Your task to perform on an android device: add a label to a message in the gmail app Image 0: 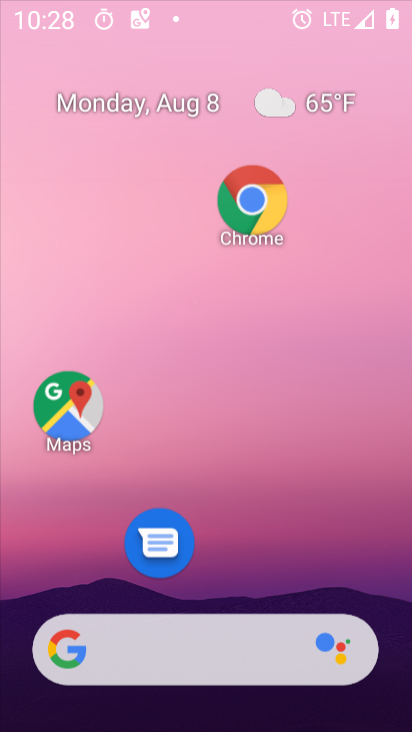
Step 0: press home button
Your task to perform on an android device: add a label to a message in the gmail app Image 1: 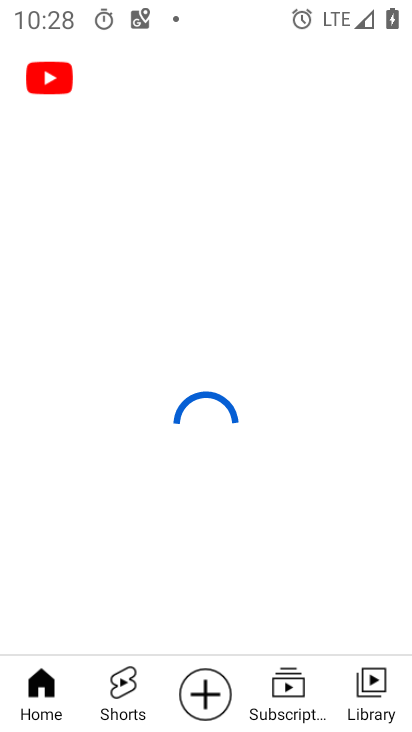
Step 1: click (240, 0)
Your task to perform on an android device: add a label to a message in the gmail app Image 2: 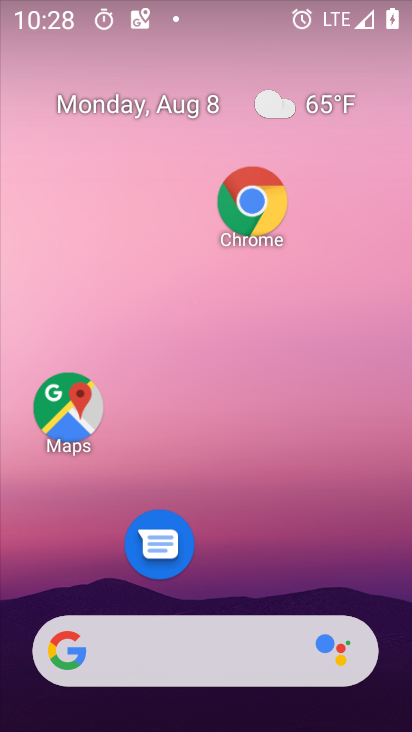
Step 2: drag from (223, 583) to (243, 10)
Your task to perform on an android device: add a label to a message in the gmail app Image 3: 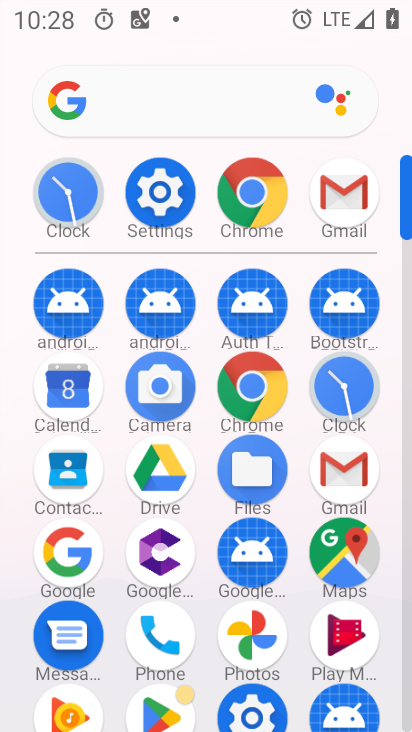
Step 3: click (335, 191)
Your task to perform on an android device: add a label to a message in the gmail app Image 4: 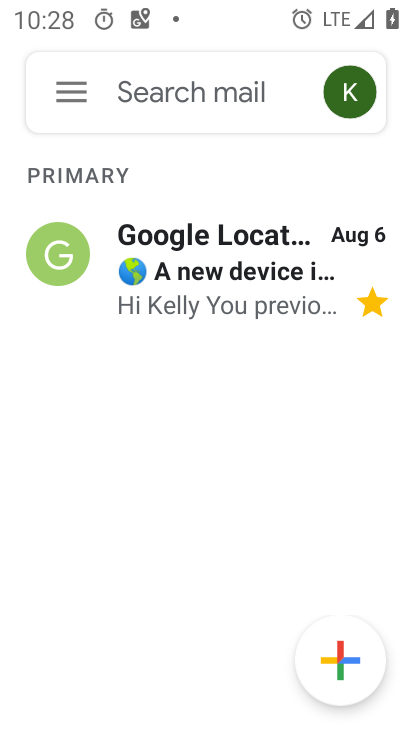
Step 4: click (59, 243)
Your task to perform on an android device: add a label to a message in the gmail app Image 5: 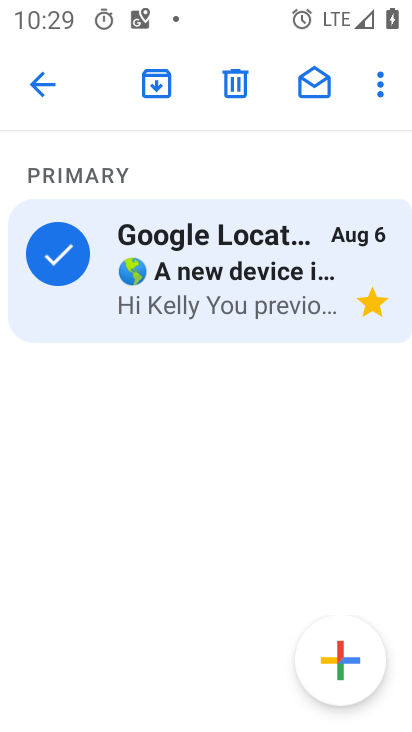
Step 5: click (379, 75)
Your task to perform on an android device: add a label to a message in the gmail app Image 6: 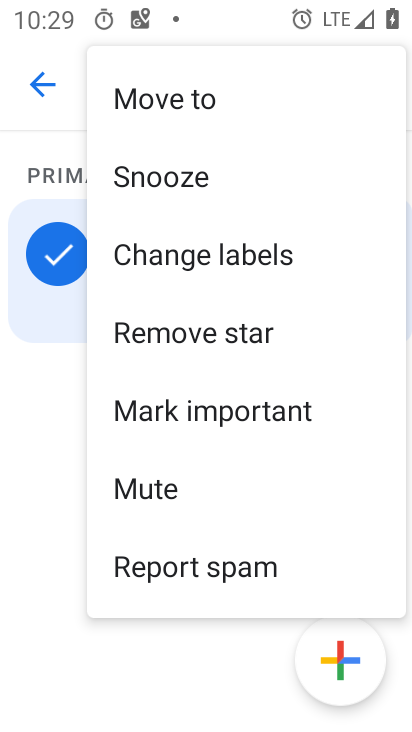
Step 6: click (247, 257)
Your task to perform on an android device: add a label to a message in the gmail app Image 7: 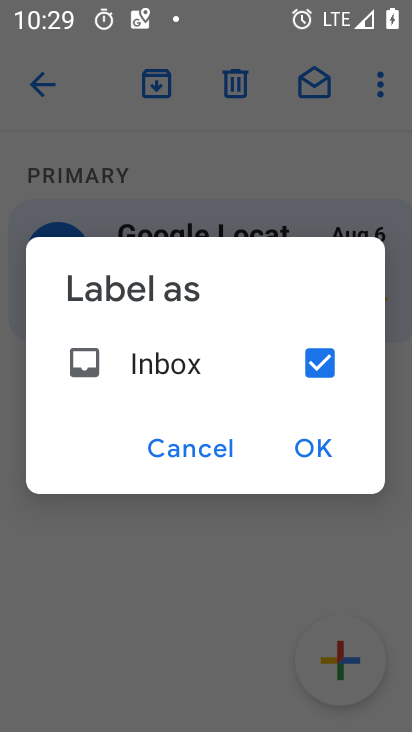
Step 7: click (322, 361)
Your task to perform on an android device: add a label to a message in the gmail app Image 8: 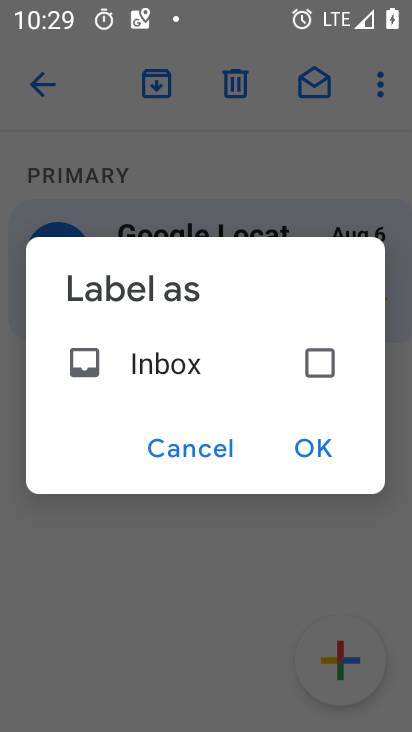
Step 8: click (312, 447)
Your task to perform on an android device: add a label to a message in the gmail app Image 9: 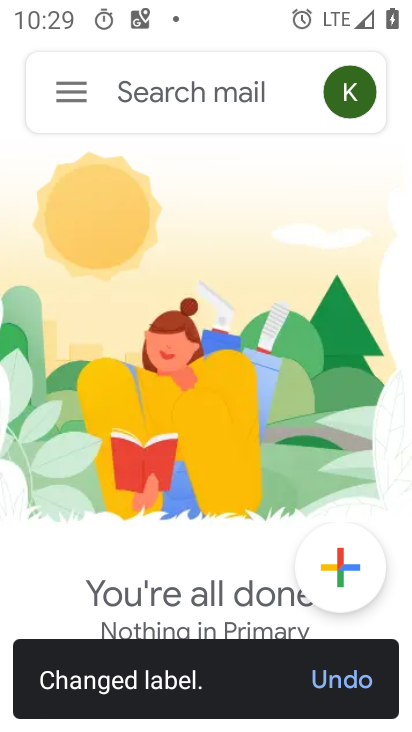
Step 9: task complete